Your task to perform on an android device: toggle notifications settings in the gmail app Image 0: 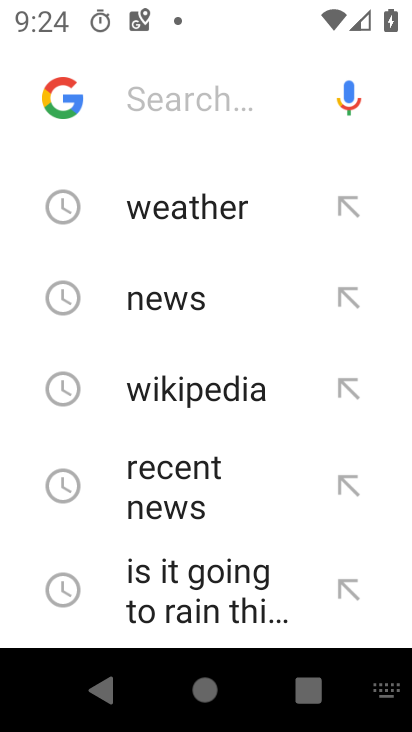
Step 0: press home button
Your task to perform on an android device: toggle notifications settings in the gmail app Image 1: 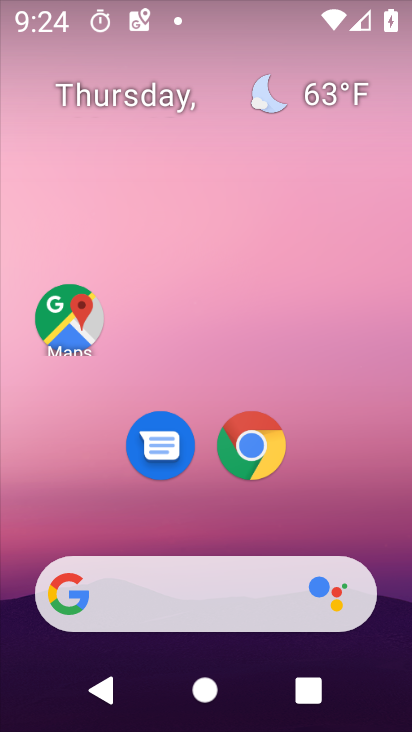
Step 1: drag from (373, 568) to (303, 250)
Your task to perform on an android device: toggle notifications settings in the gmail app Image 2: 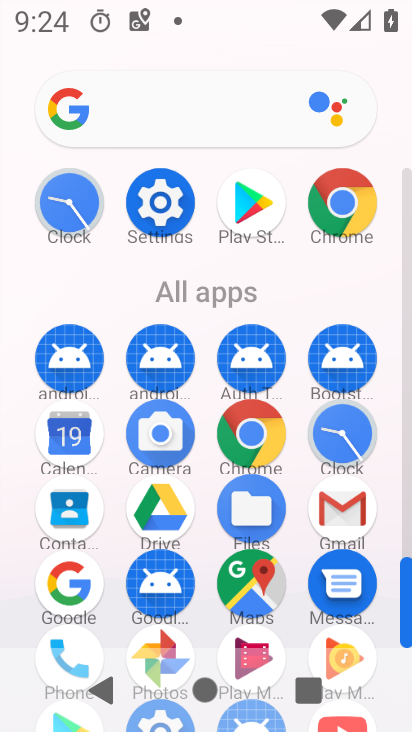
Step 2: click (345, 522)
Your task to perform on an android device: toggle notifications settings in the gmail app Image 3: 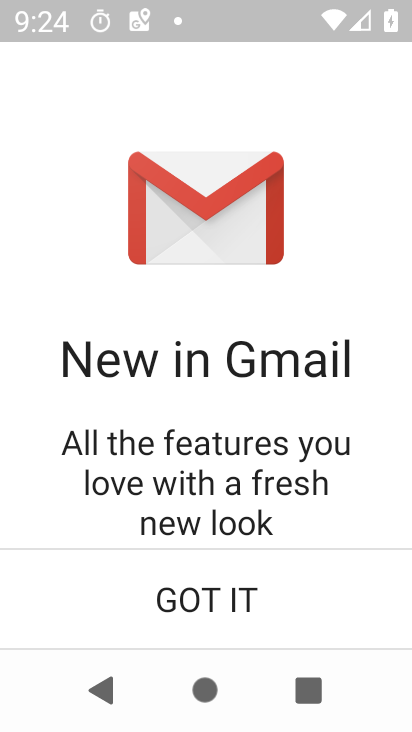
Step 3: click (236, 617)
Your task to perform on an android device: toggle notifications settings in the gmail app Image 4: 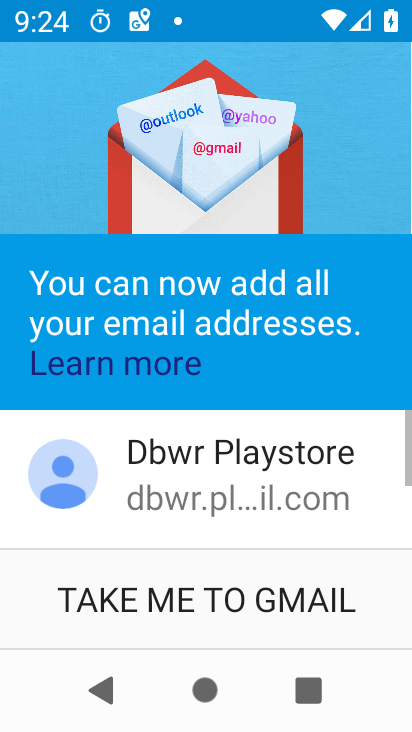
Step 4: click (235, 615)
Your task to perform on an android device: toggle notifications settings in the gmail app Image 5: 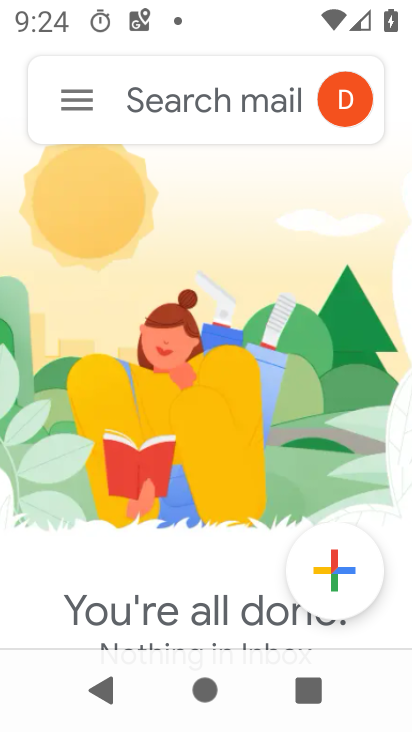
Step 5: click (52, 103)
Your task to perform on an android device: toggle notifications settings in the gmail app Image 6: 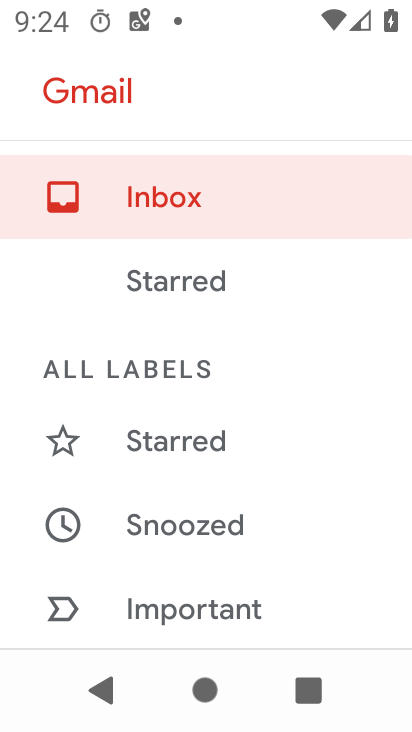
Step 6: drag from (197, 567) to (207, 241)
Your task to perform on an android device: toggle notifications settings in the gmail app Image 7: 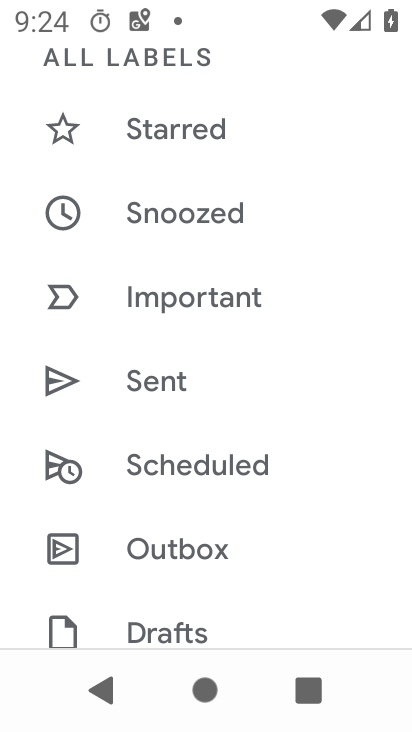
Step 7: drag from (222, 555) to (204, 210)
Your task to perform on an android device: toggle notifications settings in the gmail app Image 8: 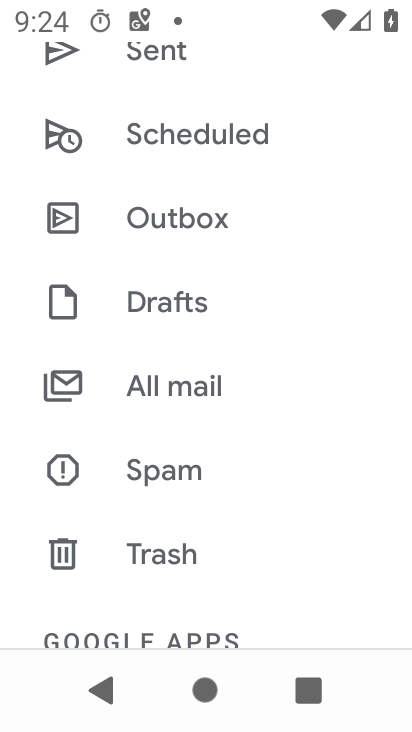
Step 8: drag from (243, 561) to (258, 267)
Your task to perform on an android device: toggle notifications settings in the gmail app Image 9: 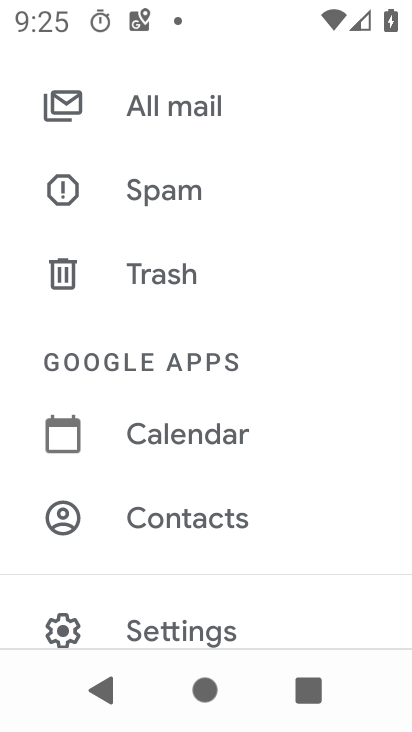
Step 9: click (189, 613)
Your task to perform on an android device: toggle notifications settings in the gmail app Image 10: 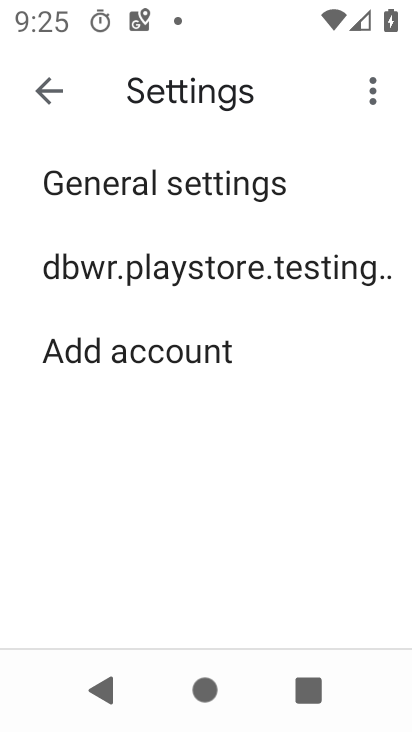
Step 10: click (217, 282)
Your task to perform on an android device: toggle notifications settings in the gmail app Image 11: 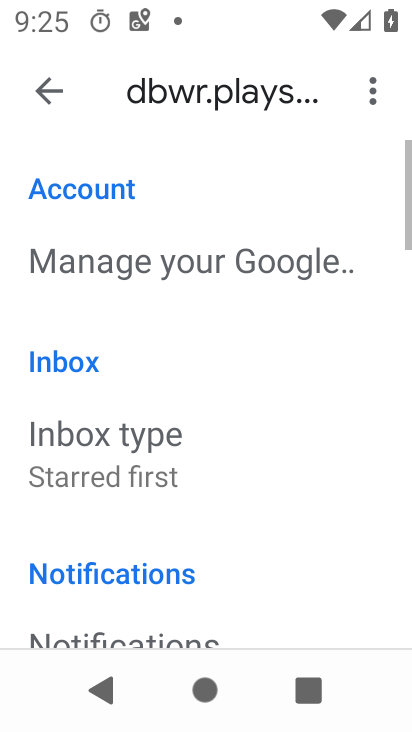
Step 11: drag from (234, 547) to (226, 290)
Your task to perform on an android device: toggle notifications settings in the gmail app Image 12: 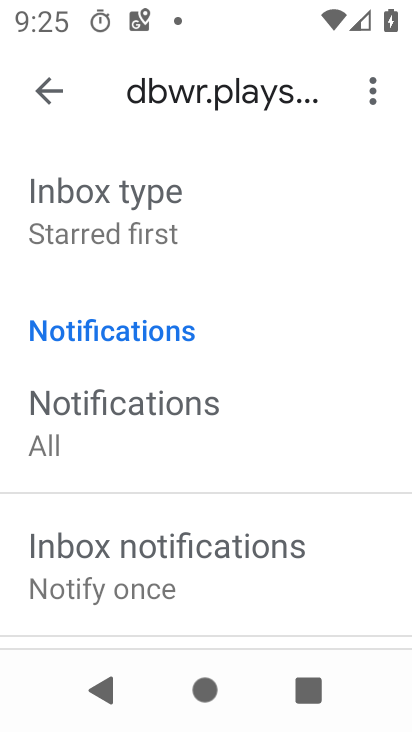
Step 12: click (172, 437)
Your task to perform on an android device: toggle notifications settings in the gmail app Image 13: 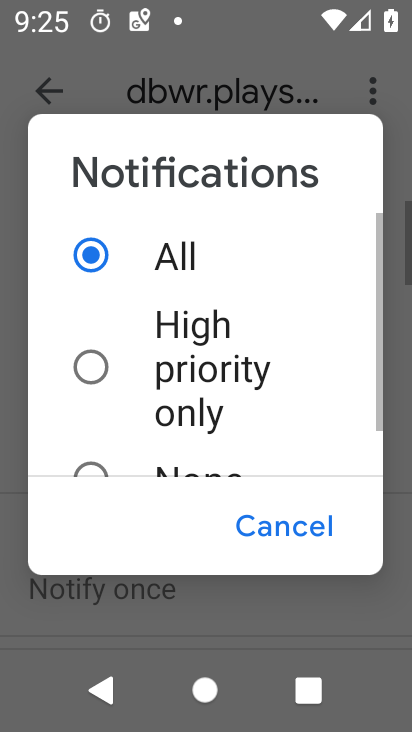
Step 13: drag from (207, 426) to (203, 306)
Your task to perform on an android device: toggle notifications settings in the gmail app Image 14: 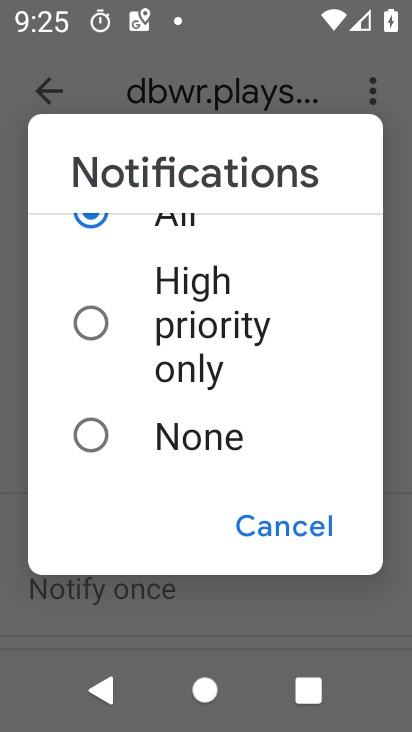
Step 14: click (146, 313)
Your task to perform on an android device: toggle notifications settings in the gmail app Image 15: 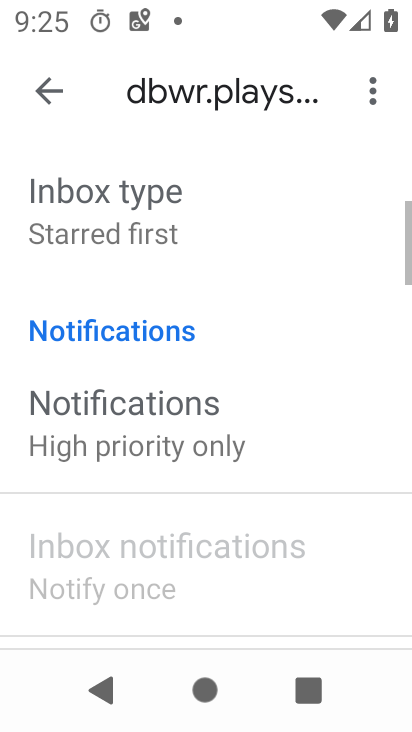
Step 15: task complete